Your task to perform on an android device: Open notification settings Image 0: 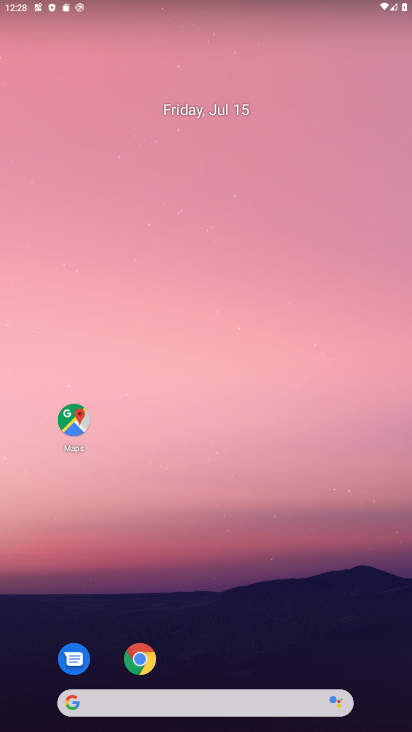
Step 0: drag from (232, 614) to (243, 182)
Your task to perform on an android device: Open notification settings Image 1: 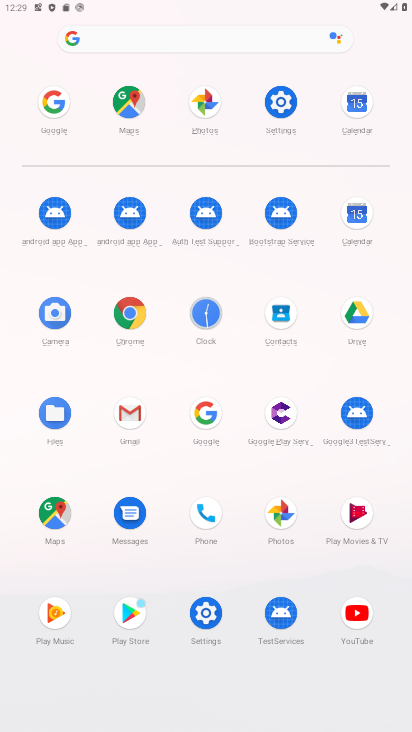
Step 1: click (288, 106)
Your task to perform on an android device: Open notification settings Image 2: 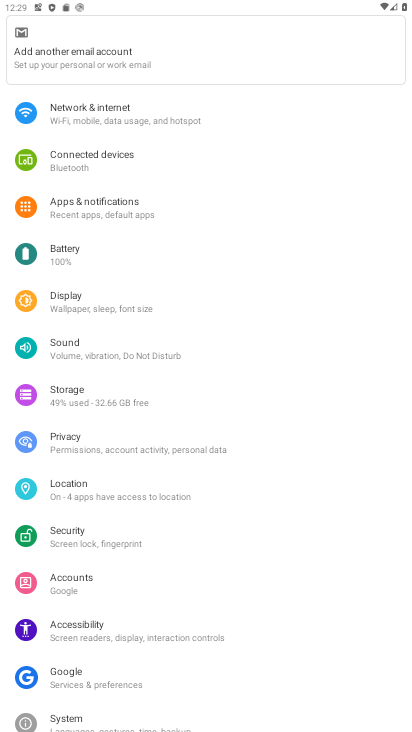
Step 2: click (149, 201)
Your task to perform on an android device: Open notification settings Image 3: 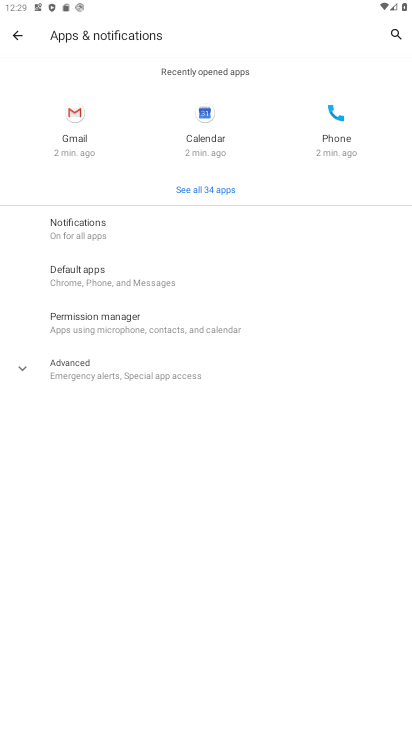
Step 3: click (125, 218)
Your task to perform on an android device: Open notification settings Image 4: 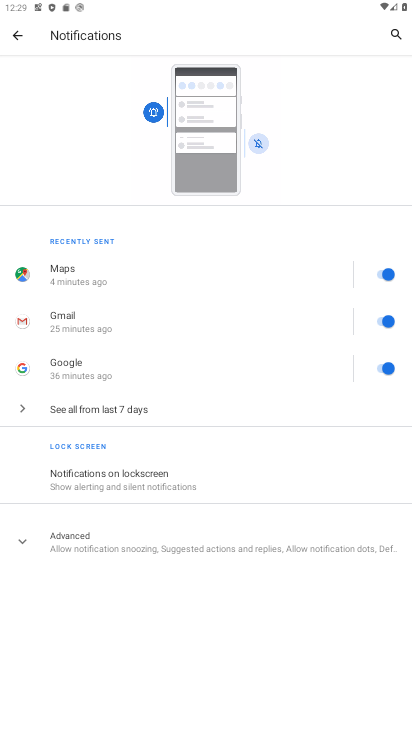
Step 4: task complete